Your task to perform on an android device: turn vacation reply on in the gmail app Image 0: 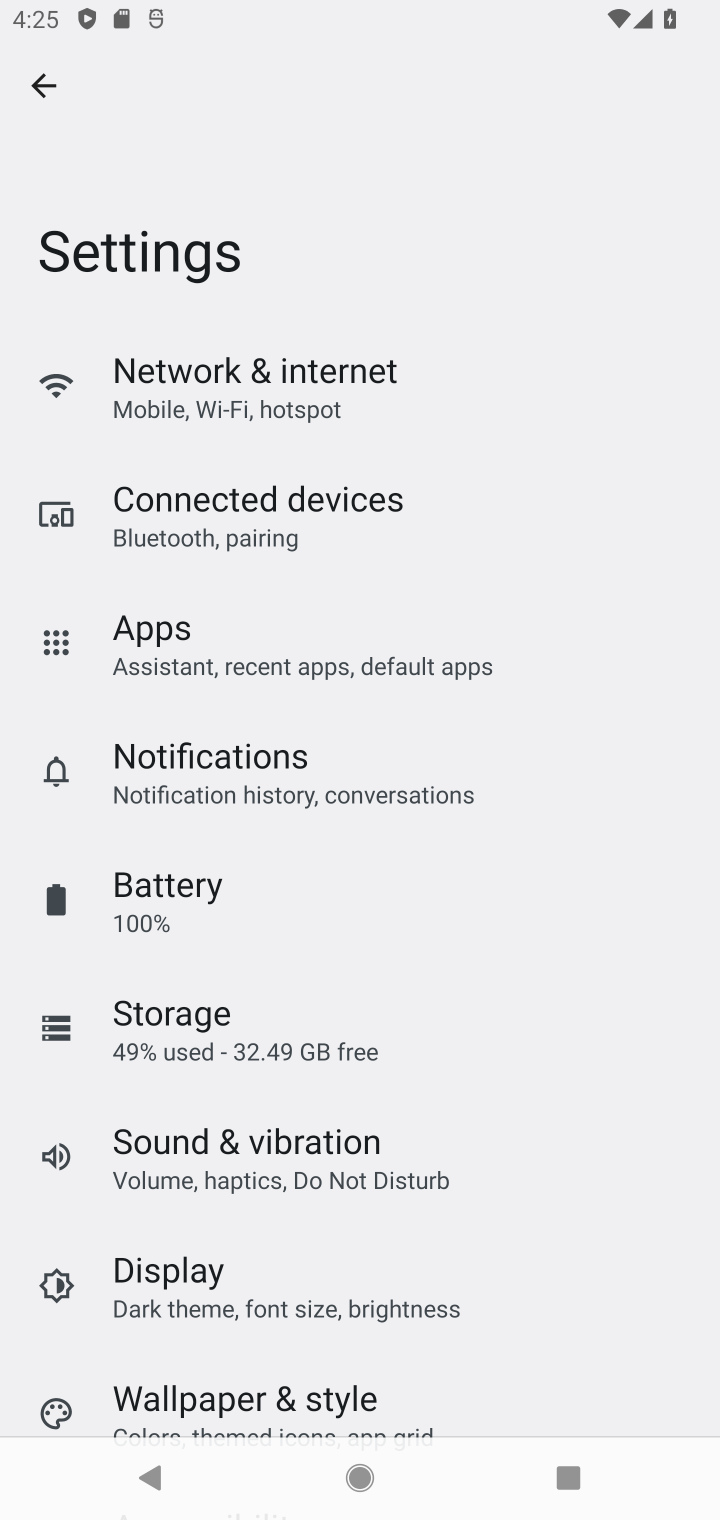
Step 0: press back button
Your task to perform on an android device: turn vacation reply on in the gmail app Image 1: 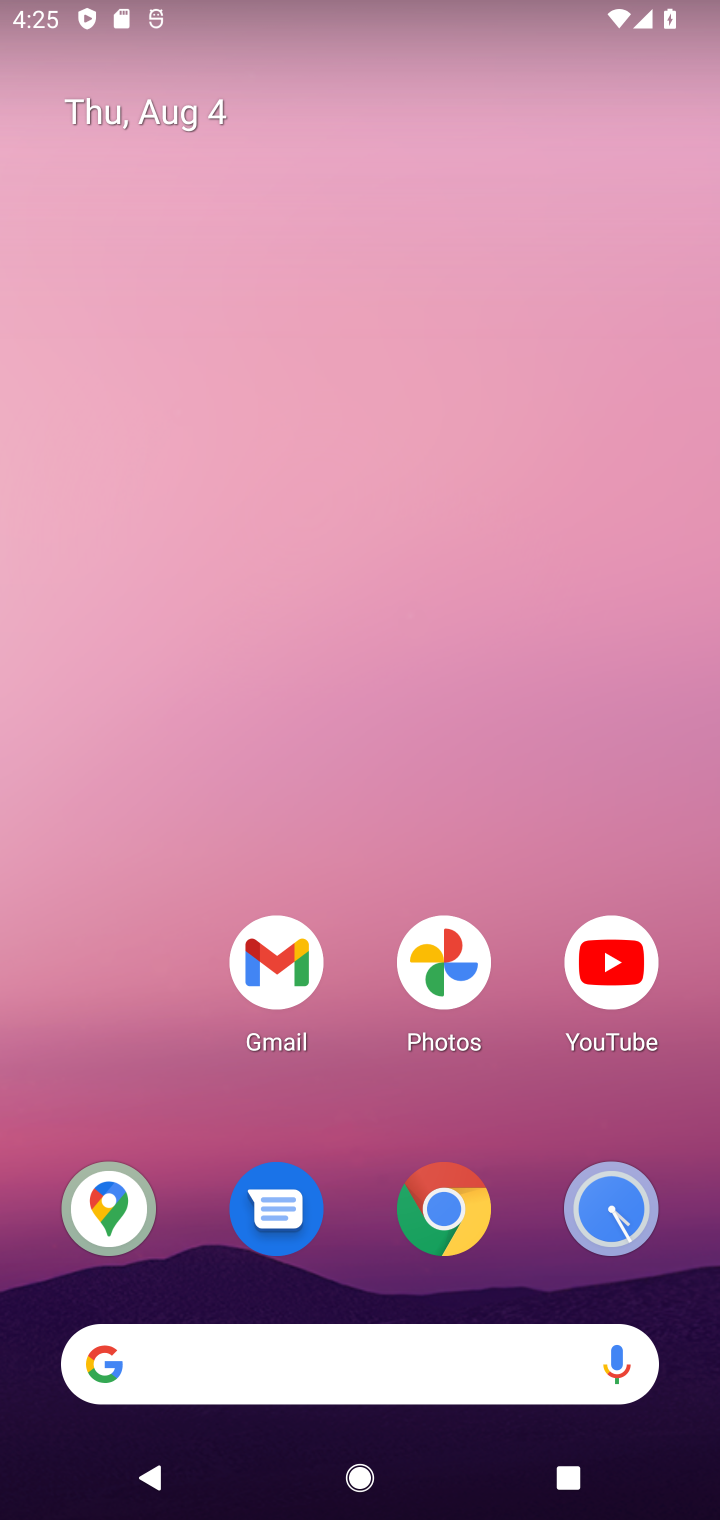
Step 1: click (264, 997)
Your task to perform on an android device: turn vacation reply on in the gmail app Image 2: 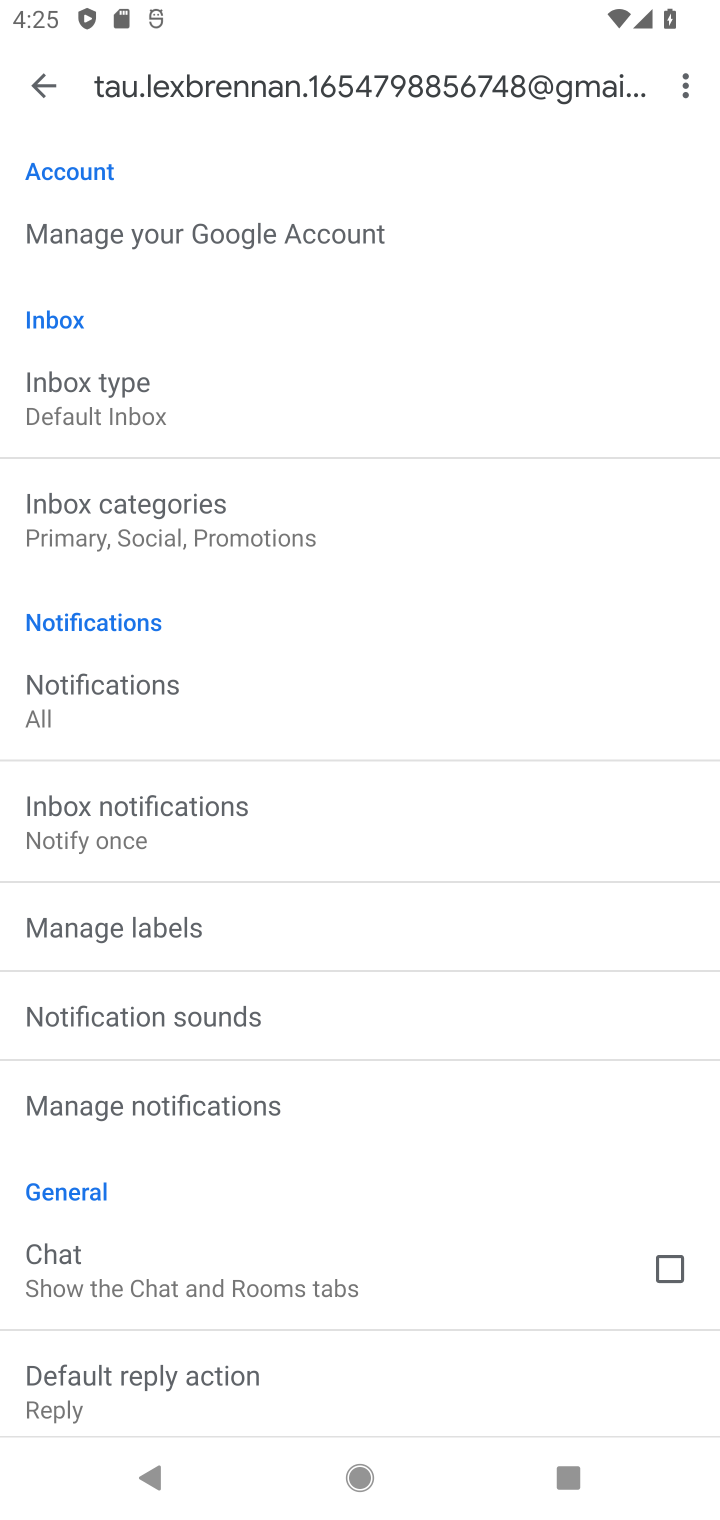
Step 2: drag from (148, 1191) to (395, 135)
Your task to perform on an android device: turn vacation reply on in the gmail app Image 3: 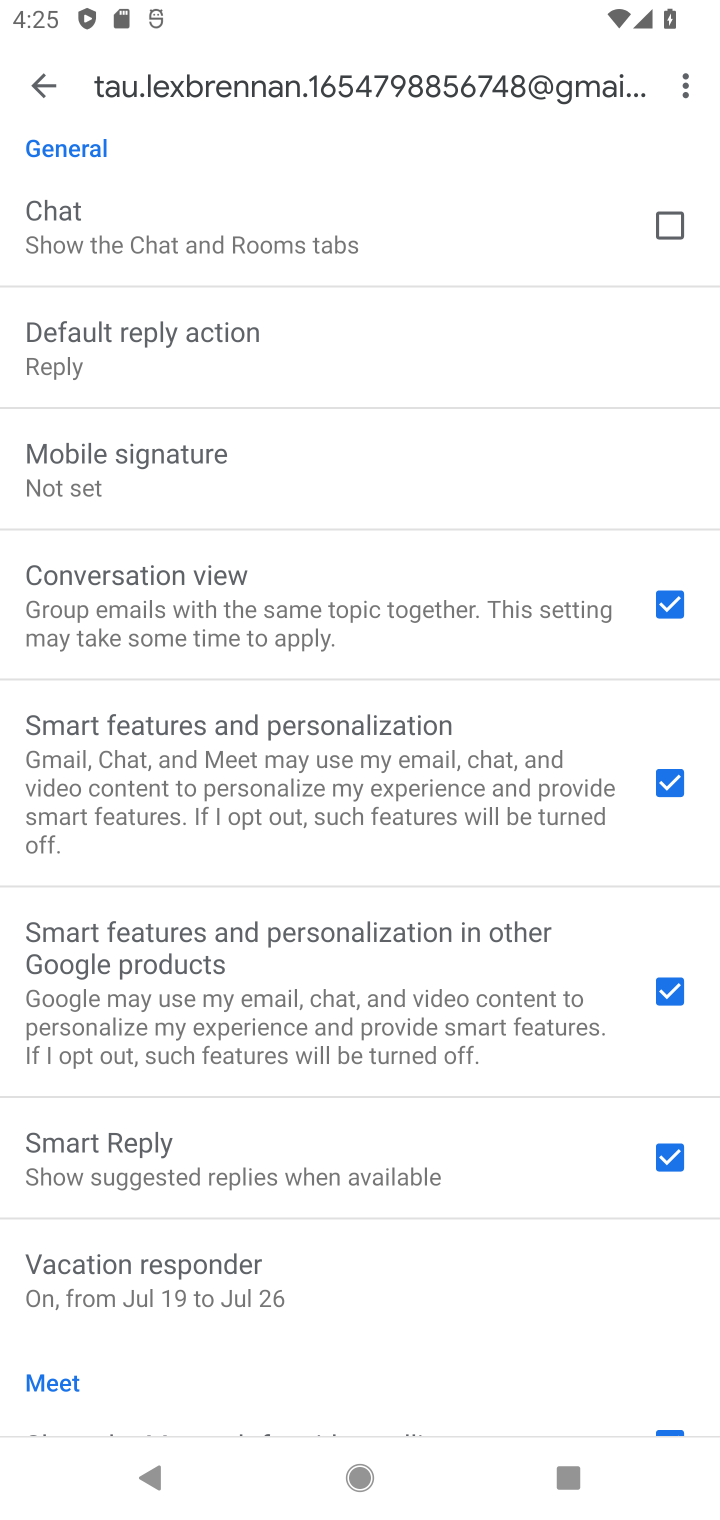
Step 3: click (162, 1277)
Your task to perform on an android device: turn vacation reply on in the gmail app Image 4: 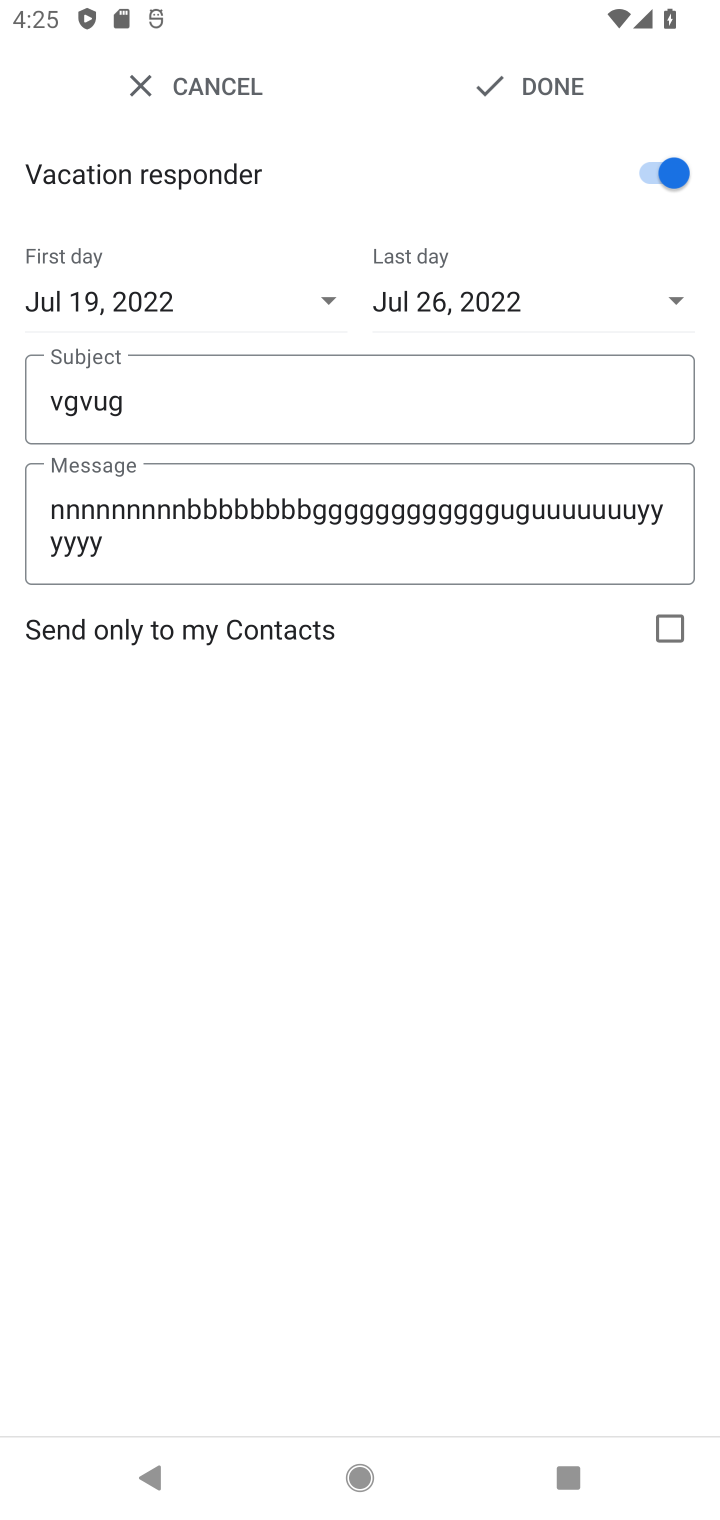
Step 4: click (564, 78)
Your task to perform on an android device: turn vacation reply on in the gmail app Image 5: 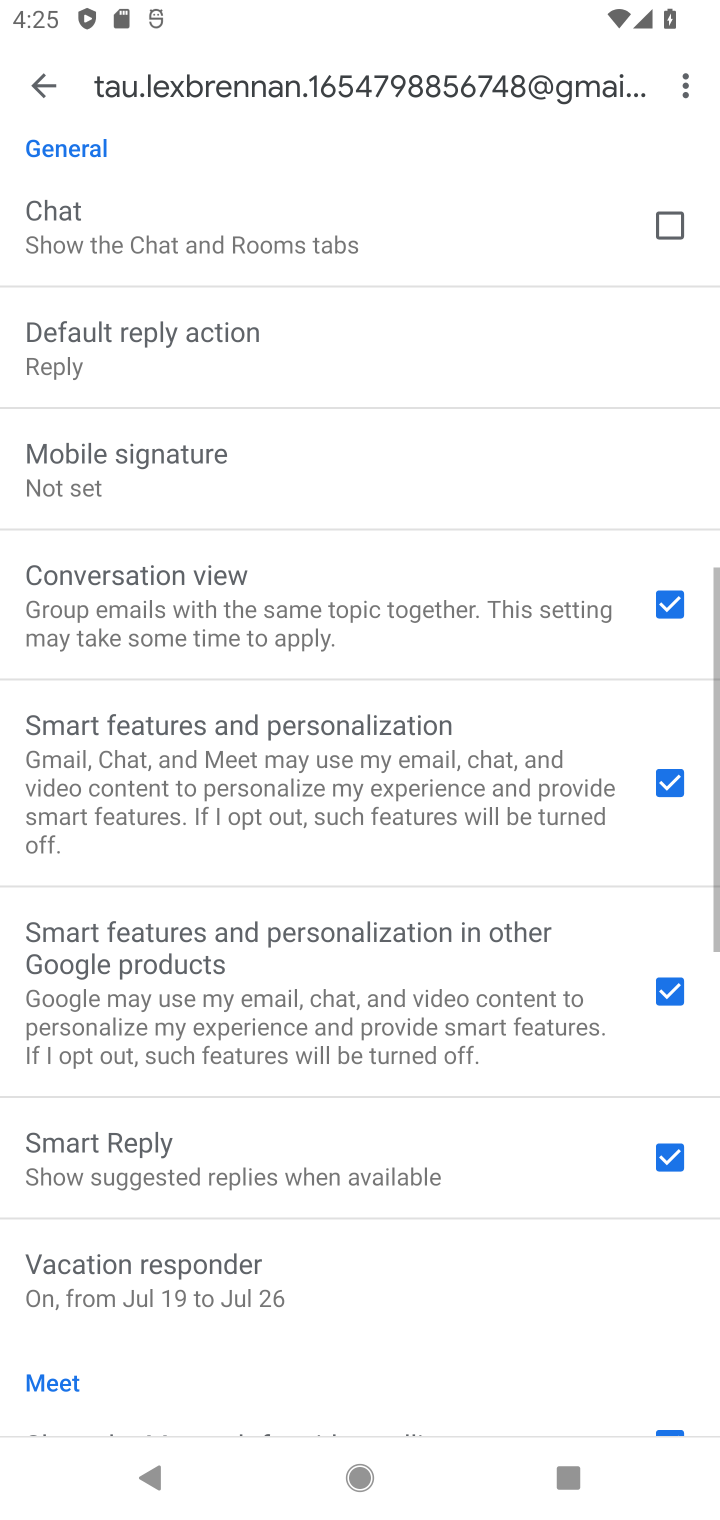
Step 5: task complete